Your task to perform on an android device: turn off picture-in-picture Image 0: 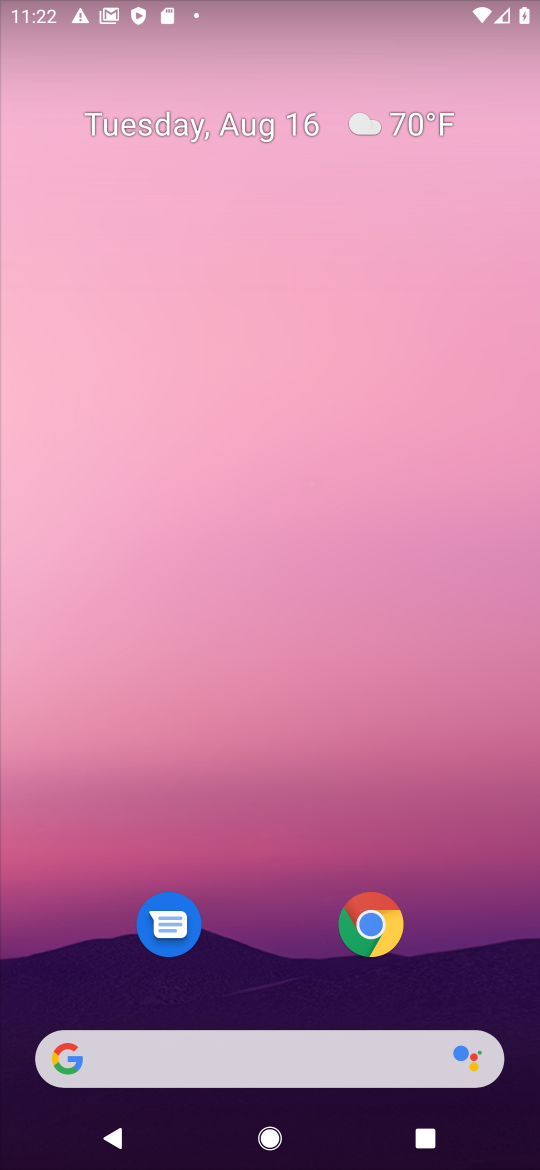
Step 0: click (371, 928)
Your task to perform on an android device: turn off picture-in-picture Image 1: 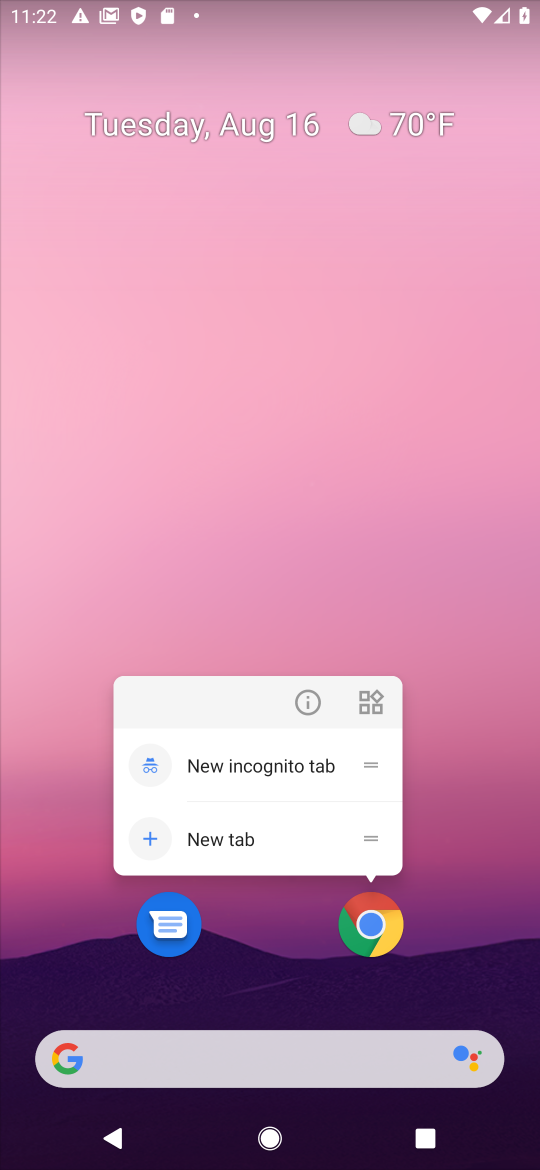
Step 1: click (305, 701)
Your task to perform on an android device: turn off picture-in-picture Image 2: 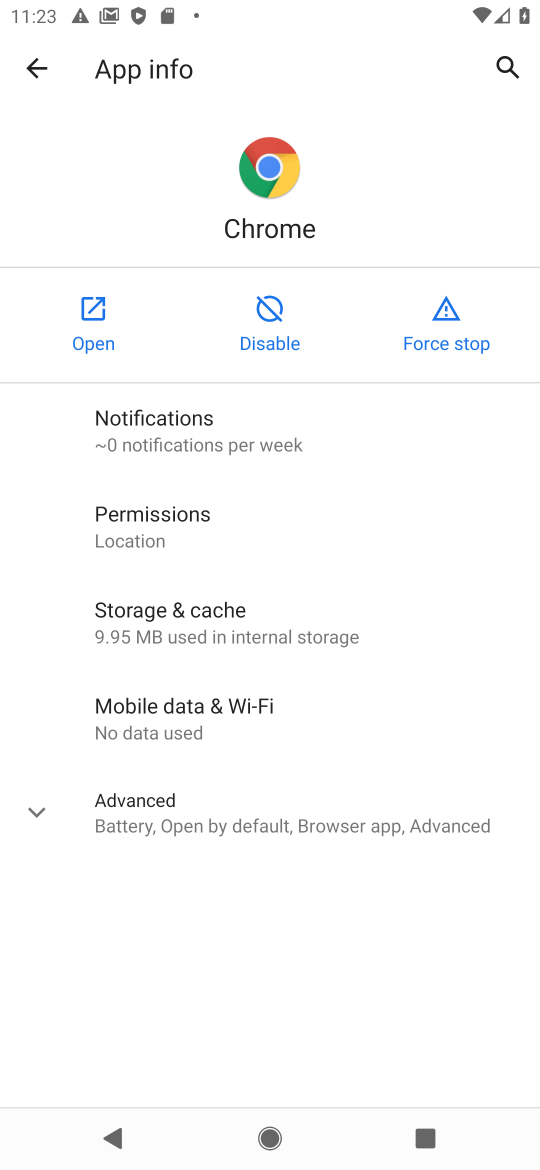
Step 2: click (170, 417)
Your task to perform on an android device: turn off picture-in-picture Image 3: 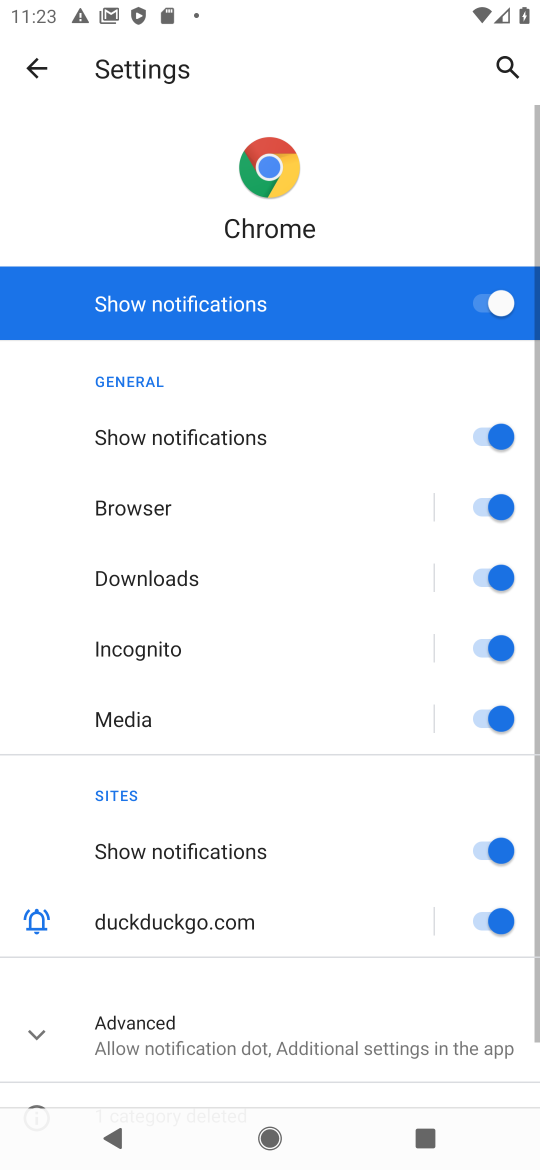
Step 3: click (226, 823)
Your task to perform on an android device: turn off picture-in-picture Image 4: 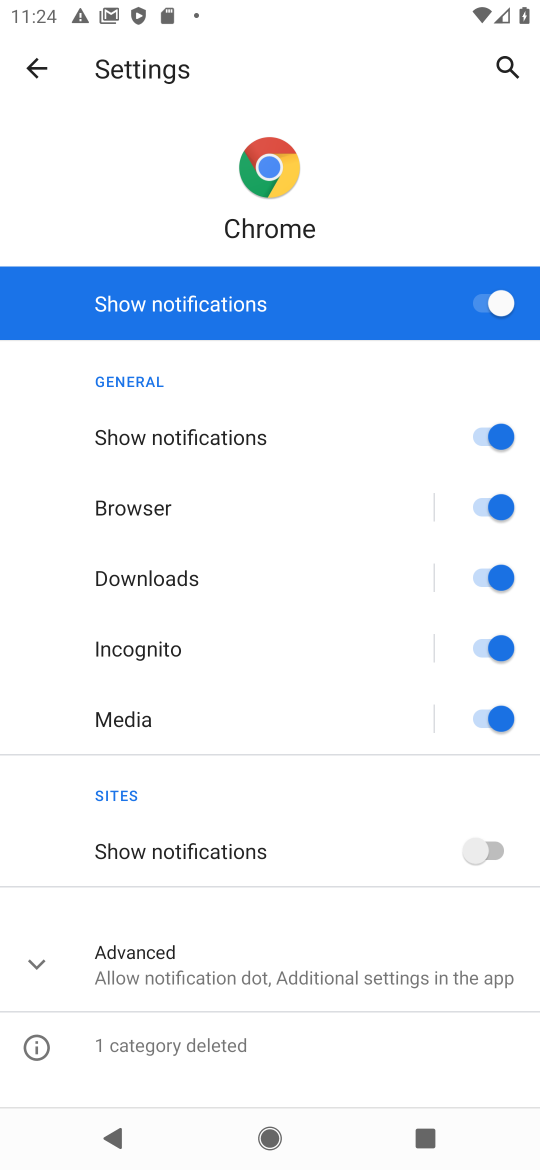
Step 4: drag from (267, 943) to (251, 183)
Your task to perform on an android device: turn off picture-in-picture Image 5: 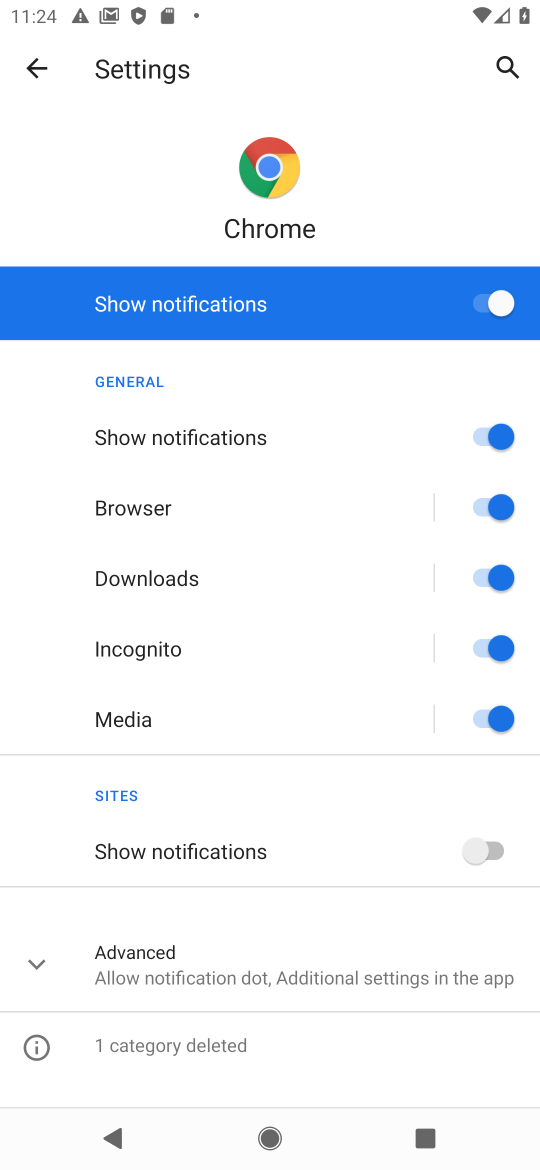
Step 5: click (220, 985)
Your task to perform on an android device: turn off picture-in-picture Image 6: 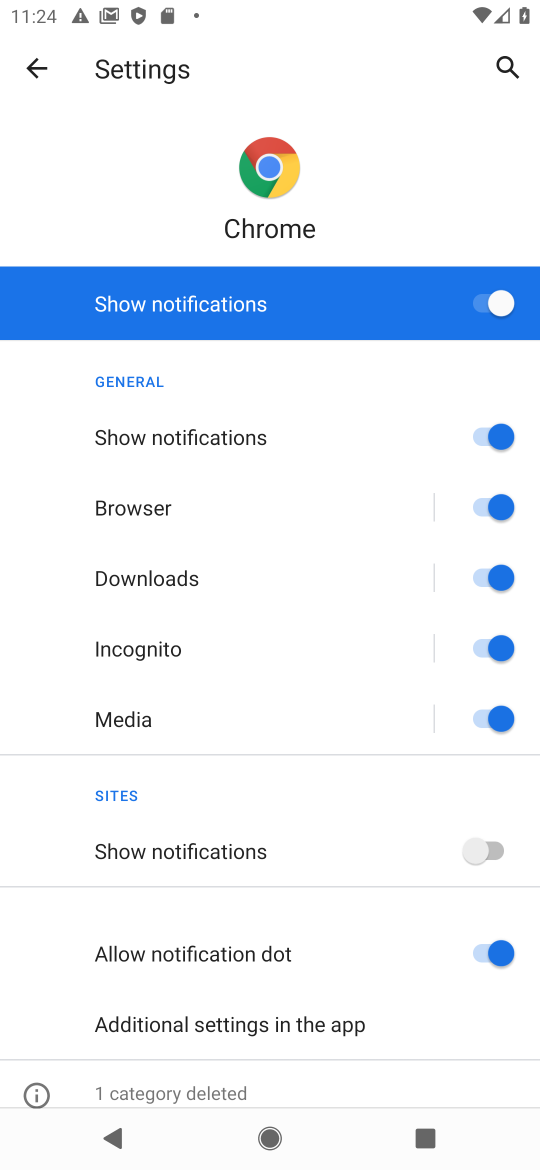
Step 6: drag from (220, 985) to (256, 114)
Your task to perform on an android device: turn off picture-in-picture Image 7: 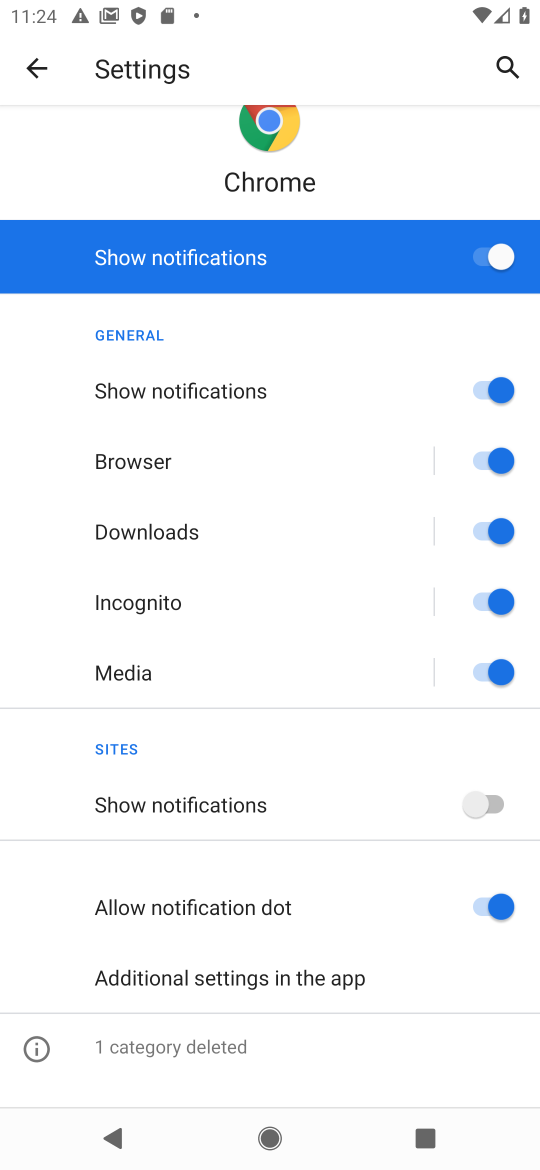
Step 7: drag from (135, 1018) to (180, 17)
Your task to perform on an android device: turn off picture-in-picture Image 8: 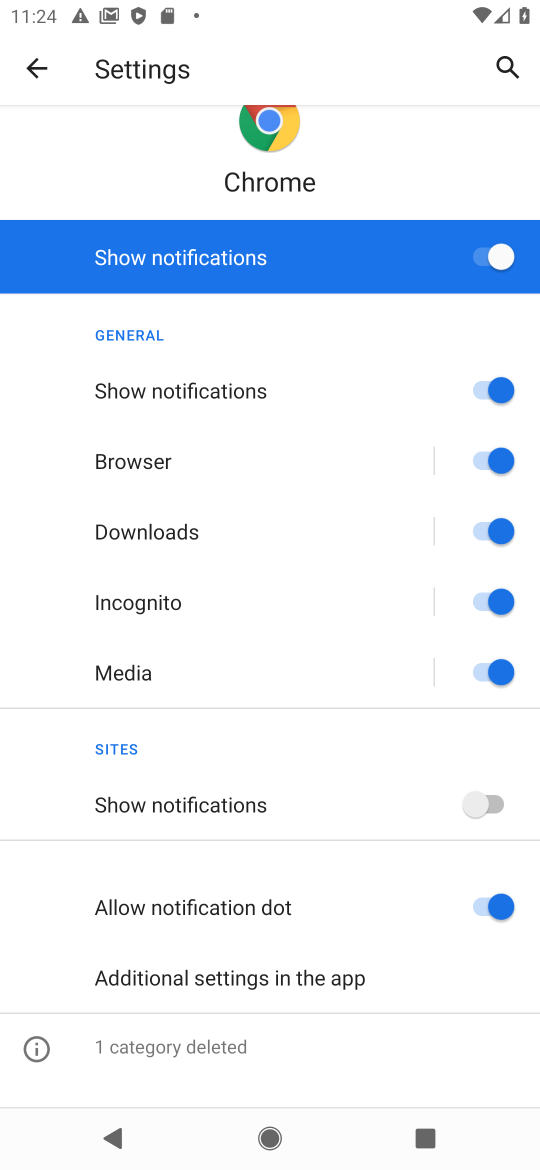
Step 8: drag from (233, 350) to (277, 939)
Your task to perform on an android device: turn off picture-in-picture Image 9: 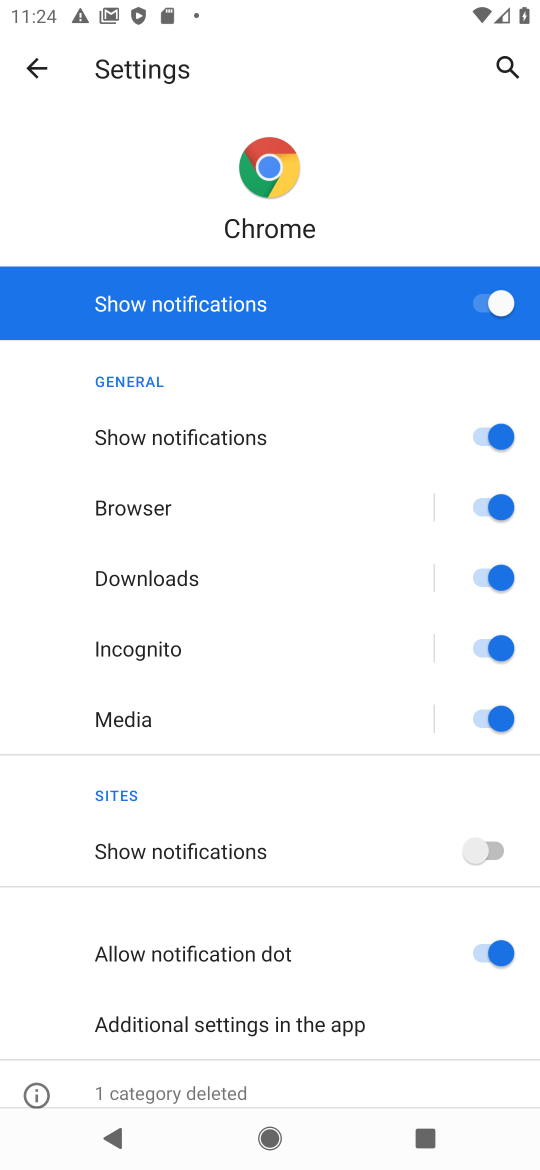
Step 9: drag from (206, 958) to (305, 27)
Your task to perform on an android device: turn off picture-in-picture Image 10: 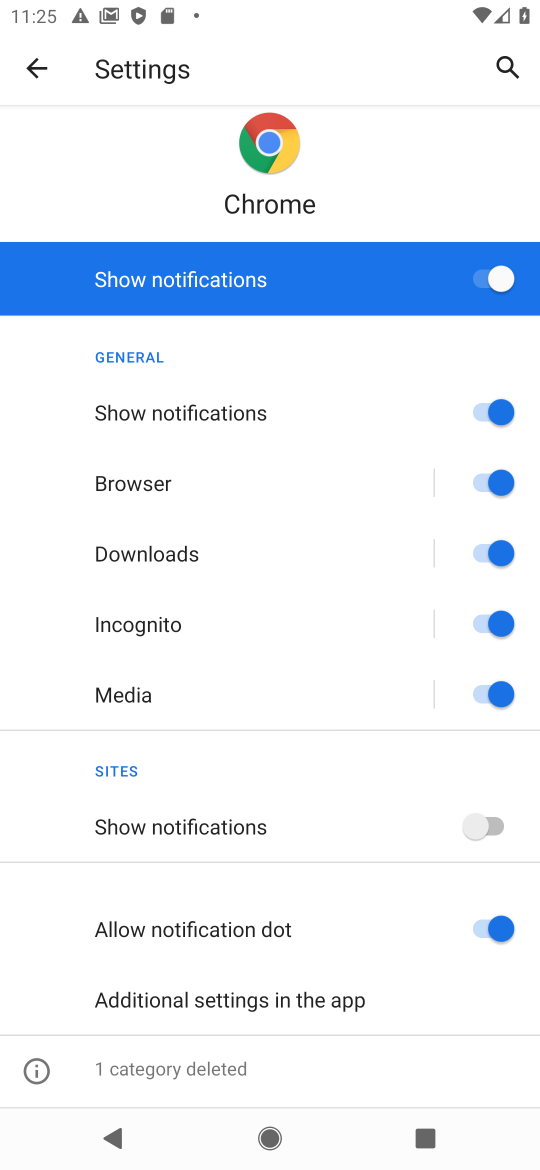
Step 10: drag from (229, 472) to (308, 931)
Your task to perform on an android device: turn off picture-in-picture Image 11: 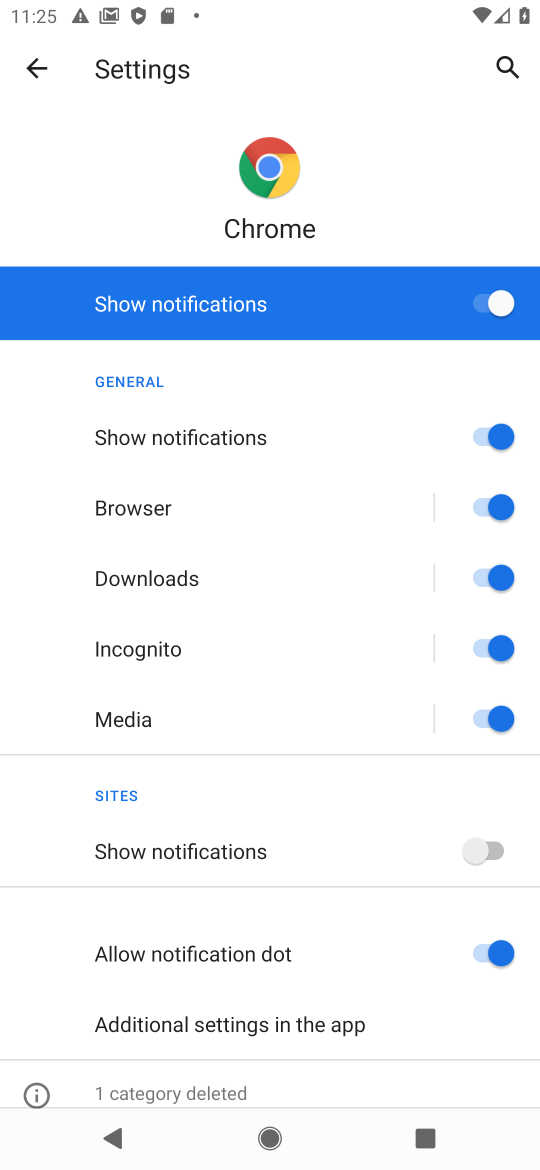
Step 11: click (56, 63)
Your task to perform on an android device: turn off picture-in-picture Image 12: 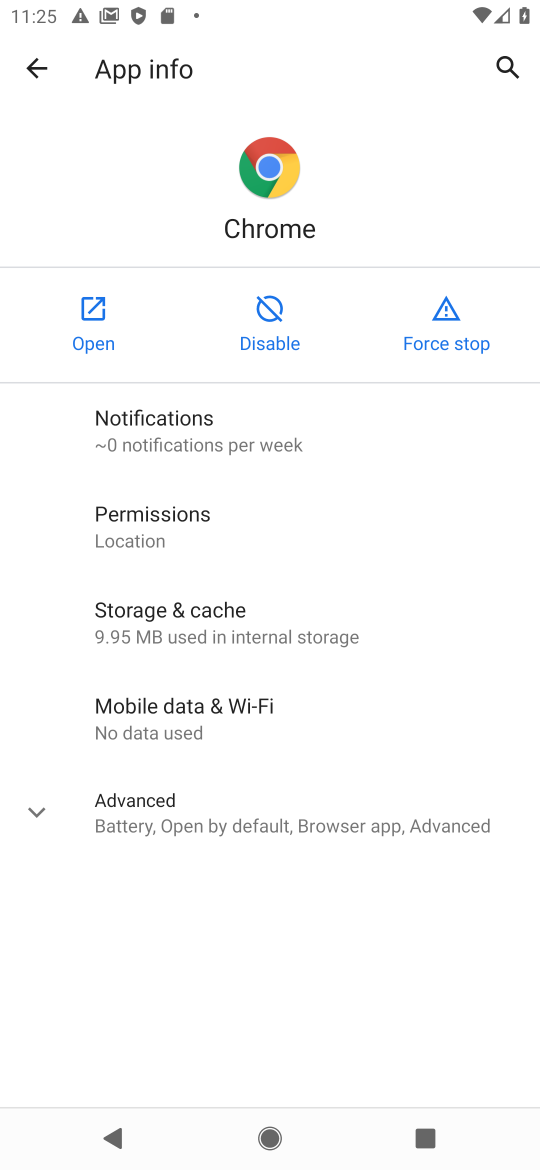
Step 12: click (222, 823)
Your task to perform on an android device: turn off picture-in-picture Image 13: 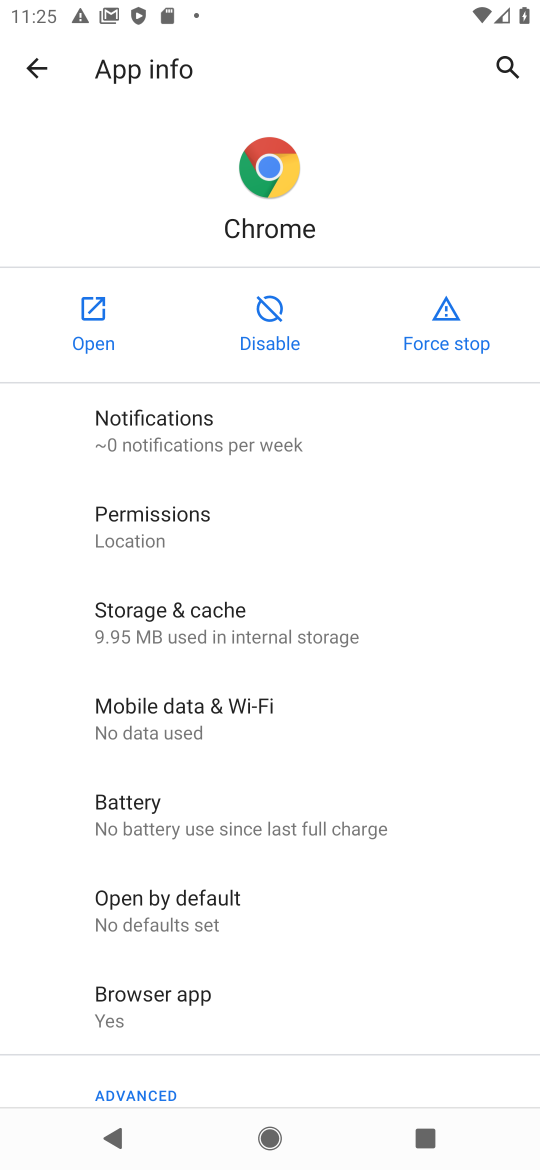
Step 13: drag from (240, 968) to (315, 218)
Your task to perform on an android device: turn off picture-in-picture Image 14: 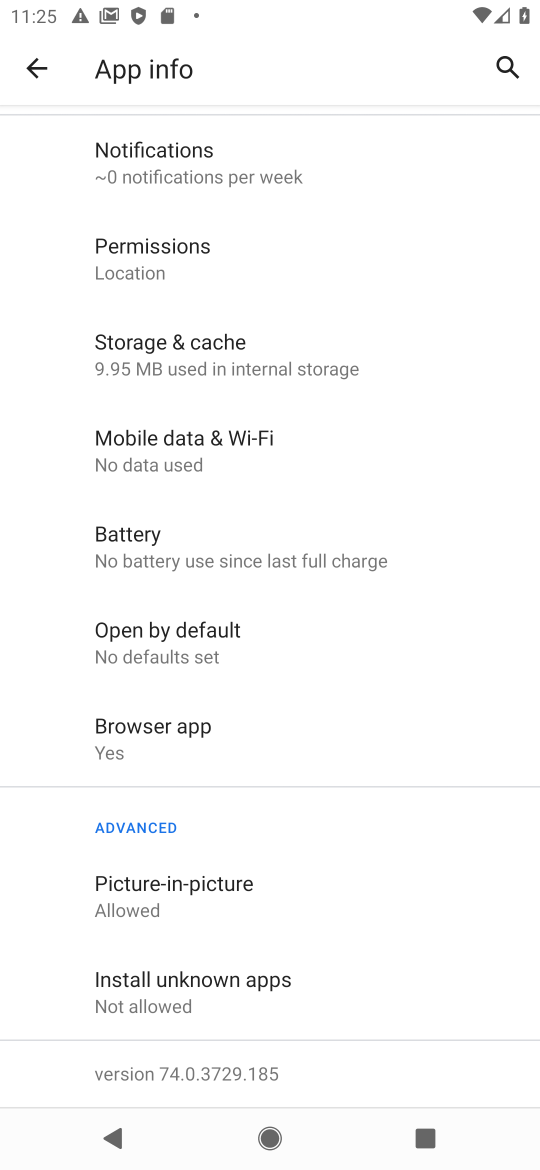
Step 14: click (183, 1028)
Your task to perform on an android device: turn off picture-in-picture Image 15: 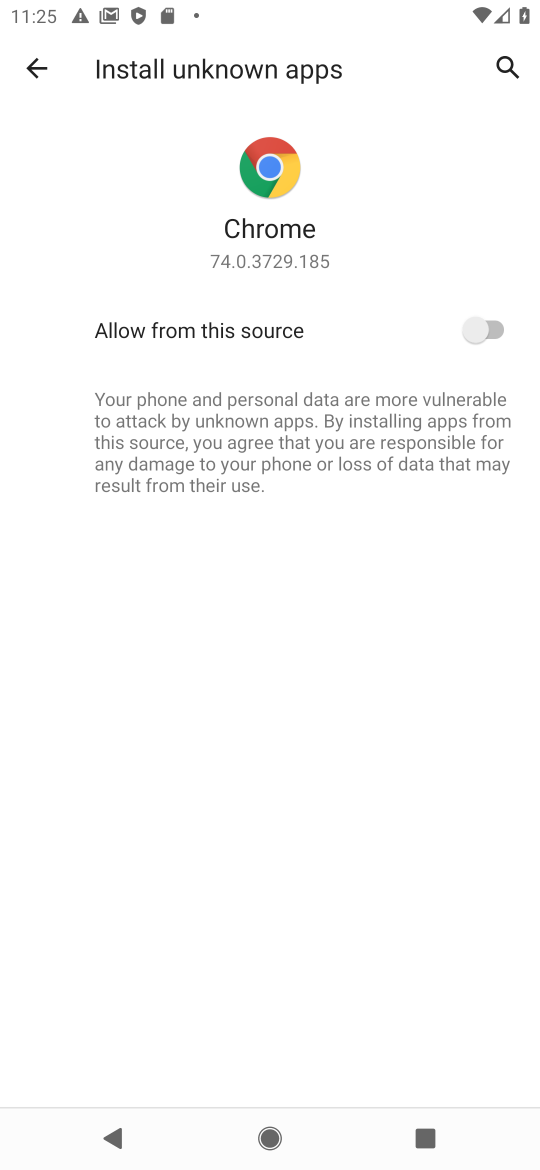
Step 15: click (43, 80)
Your task to perform on an android device: turn off picture-in-picture Image 16: 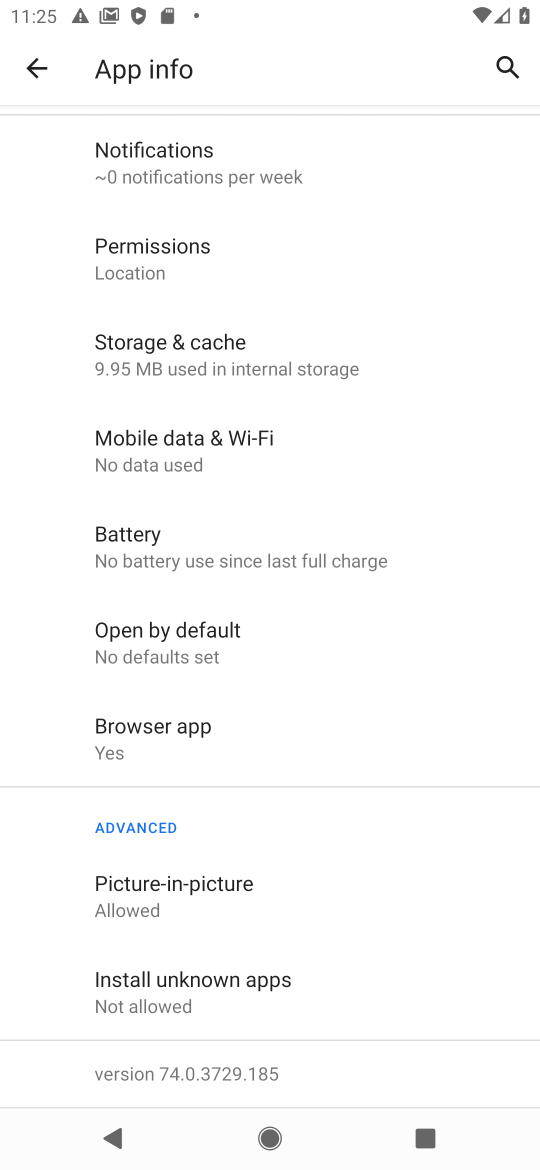
Step 16: click (216, 904)
Your task to perform on an android device: turn off picture-in-picture Image 17: 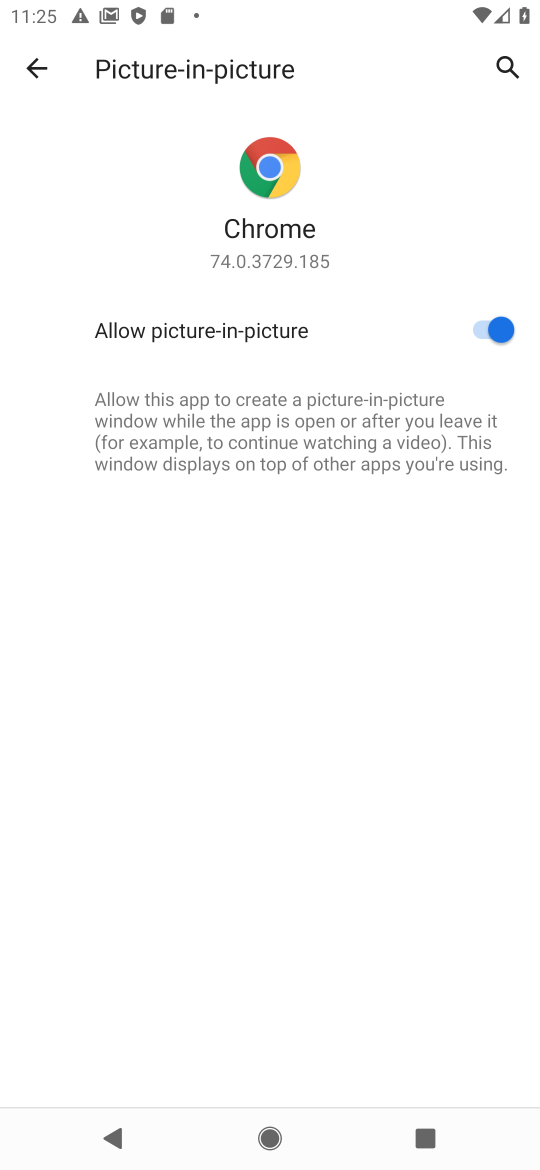
Step 17: click (488, 316)
Your task to perform on an android device: turn off picture-in-picture Image 18: 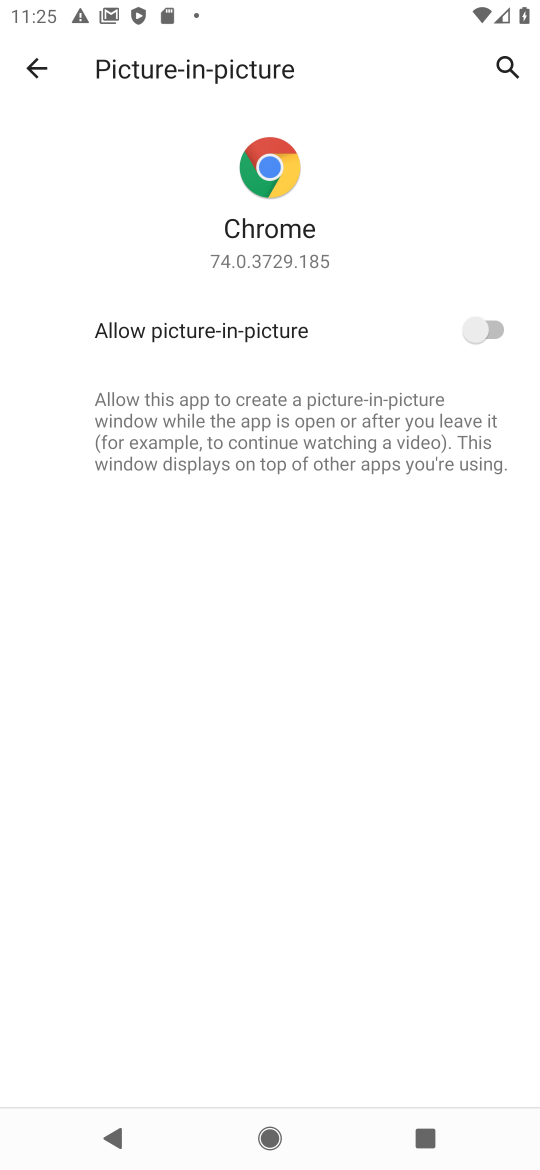
Step 18: task complete